Your task to perform on an android device: Open Google Chrome and click the shortcut for Amazon.com Image 0: 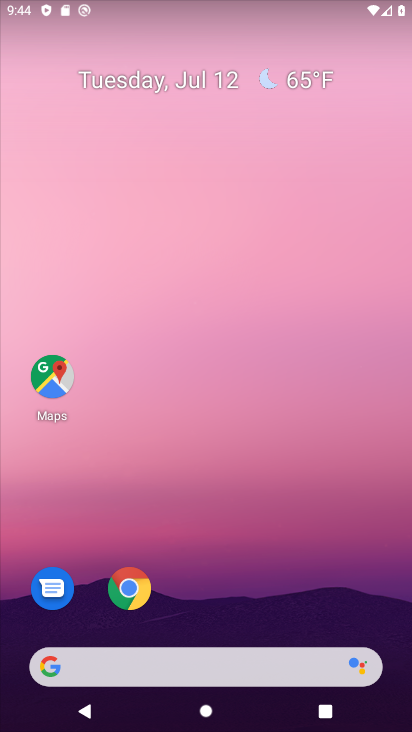
Step 0: click (137, 599)
Your task to perform on an android device: Open Google Chrome and click the shortcut for Amazon.com Image 1: 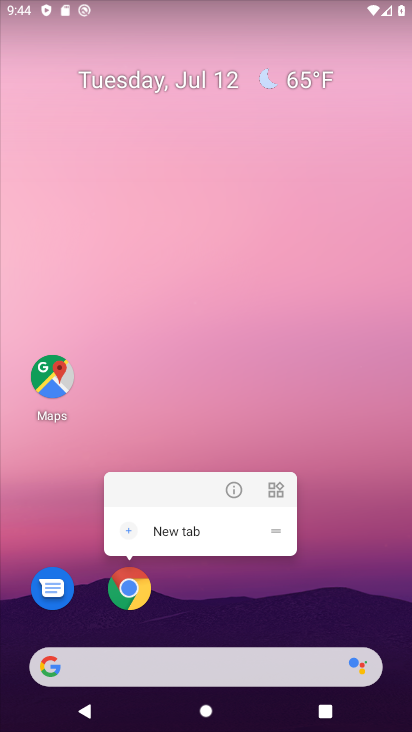
Step 1: click (132, 587)
Your task to perform on an android device: Open Google Chrome and click the shortcut for Amazon.com Image 2: 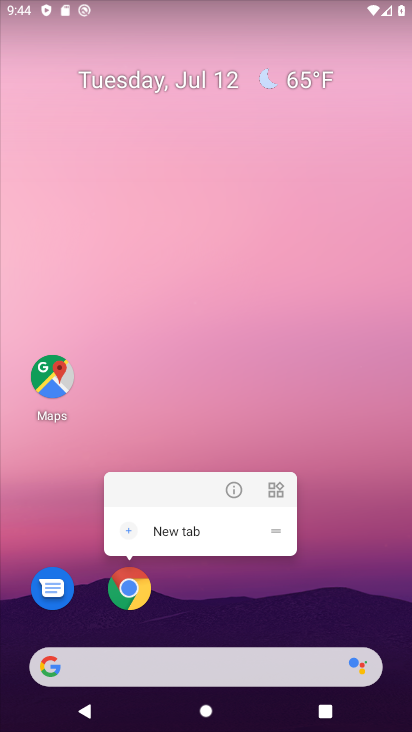
Step 2: click (130, 591)
Your task to perform on an android device: Open Google Chrome and click the shortcut for Amazon.com Image 3: 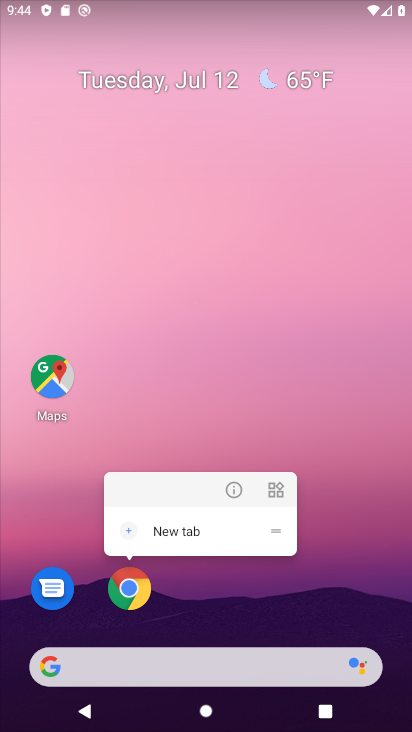
Step 3: click (135, 586)
Your task to perform on an android device: Open Google Chrome and click the shortcut for Amazon.com Image 4: 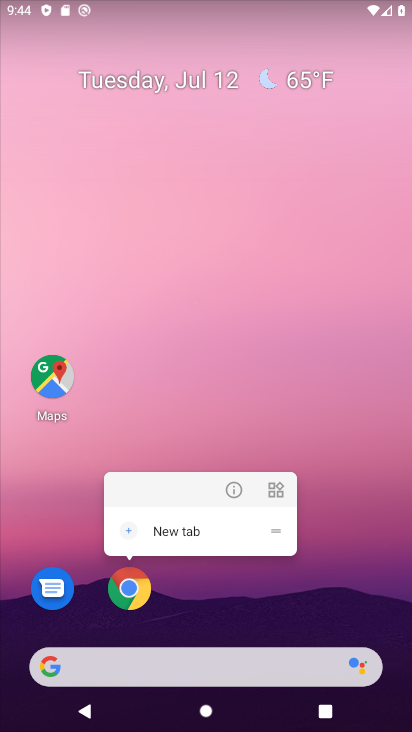
Step 4: task complete